Your task to perform on an android device: Open Google Image 0: 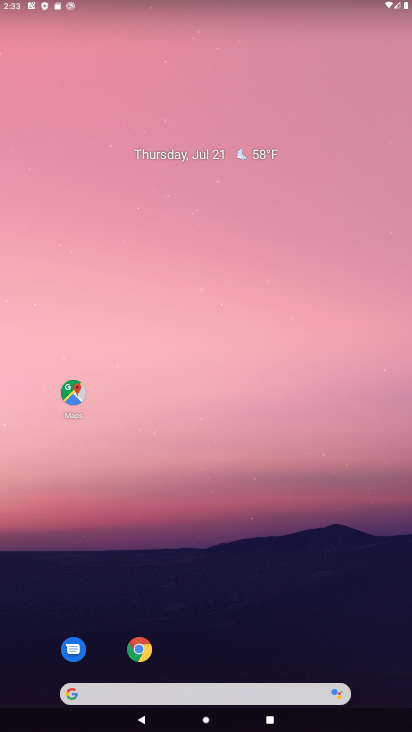
Step 0: click (199, 695)
Your task to perform on an android device: Open Google Image 1: 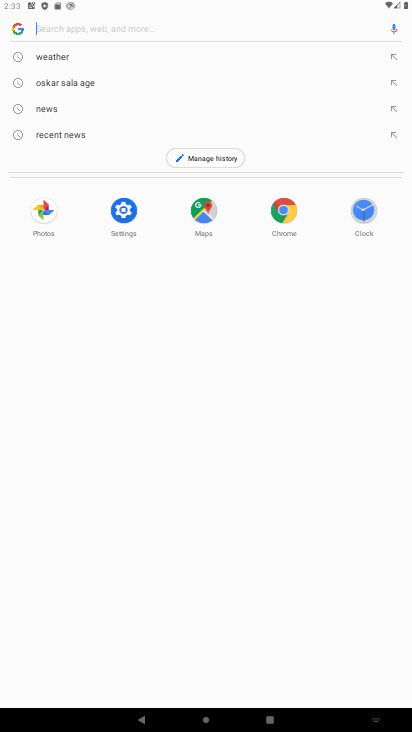
Step 1: type "google.com"
Your task to perform on an android device: Open Google Image 2: 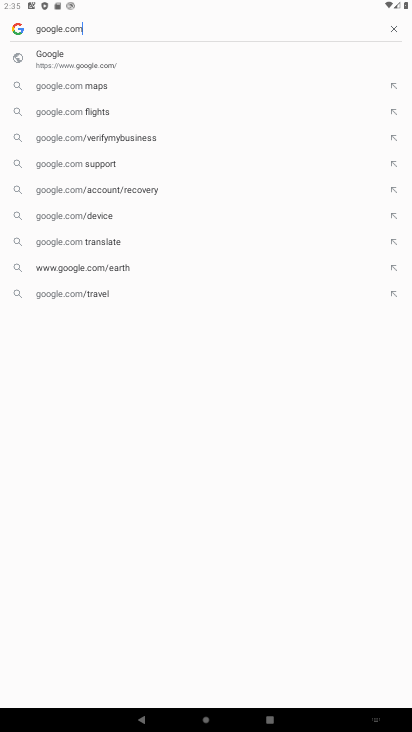
Step 2: click (303, 71)
Your task to perform on an android device: Open Google Image 3: 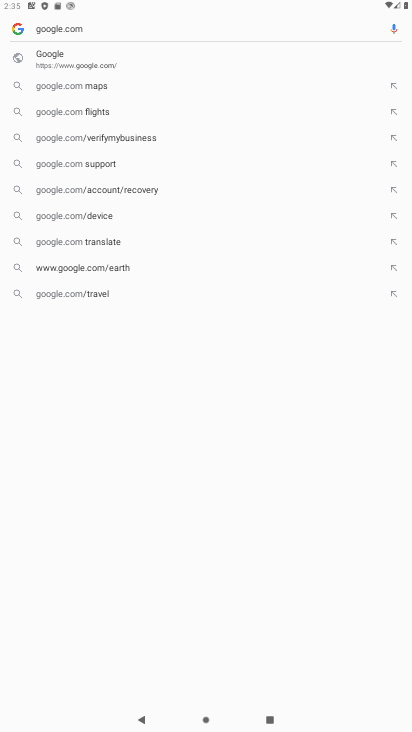
Step 3: task complete